Your task to perform on an android device: toggle pop-ups in chrome Image 0: 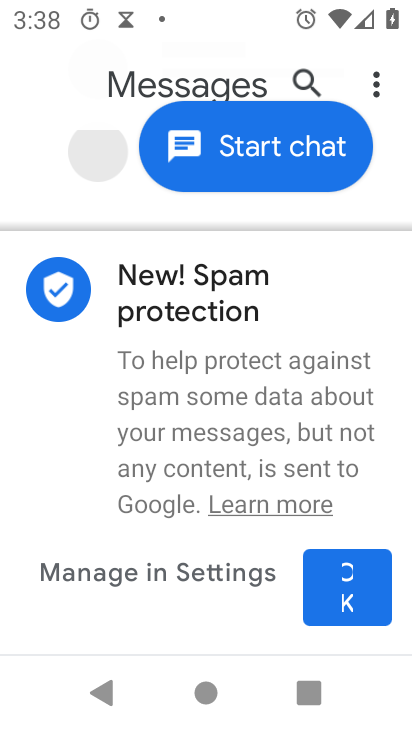
Step 0: press home button
Your task to perform on an android device: toggle pop-ups in chrome Image 1: 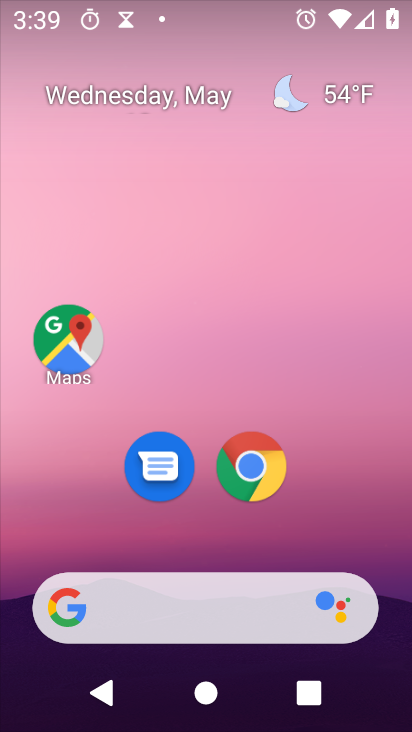
Step 1: drag from (324, 528) to (287, 285)
Your task to perform on an android device: toggle pop-ups in chrome Image 2: 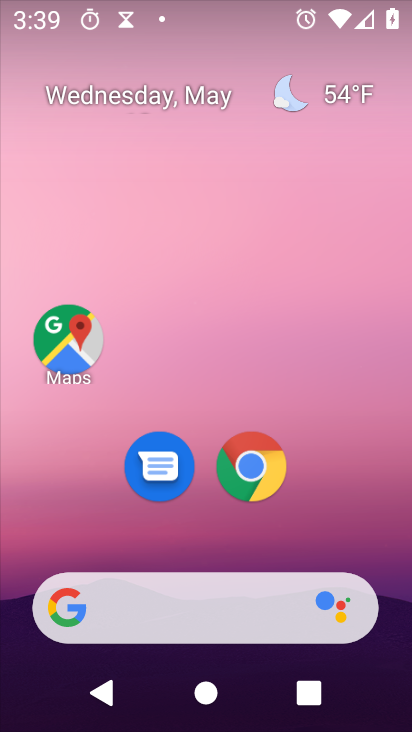
Step 2: click (259, 476)
Your task to perform on an android device: toggle pop-ups in chrome Image 3: 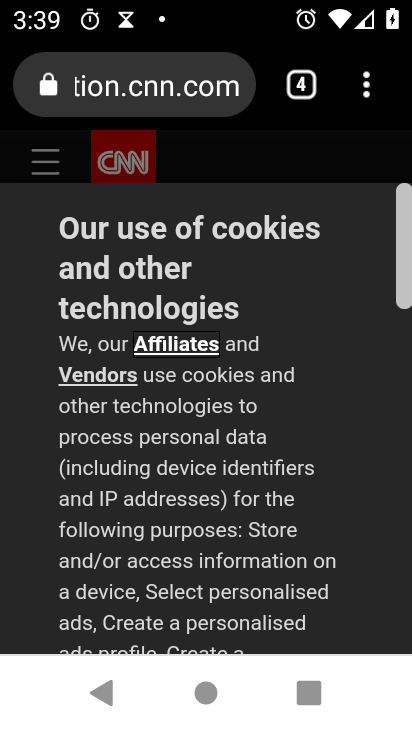
Step 3: click (351, 93)
Your task to perform on an android device: toggle pop-ups in chrome Image 4: 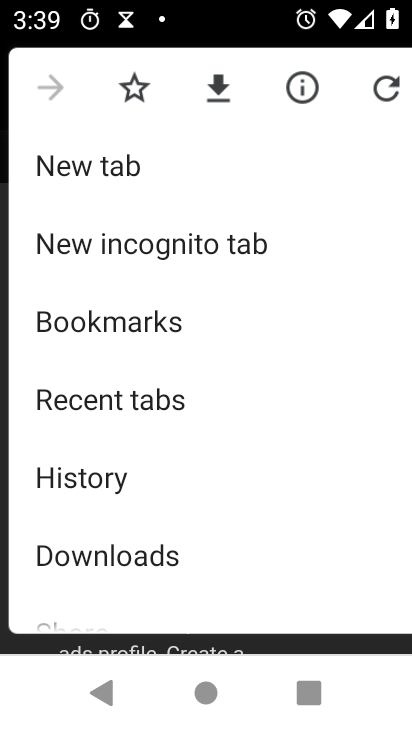
Step 4: drag from (200, 592) to (292, 0)
Your task to perform on an android device: toggle pop-ups in chrome Image 5: 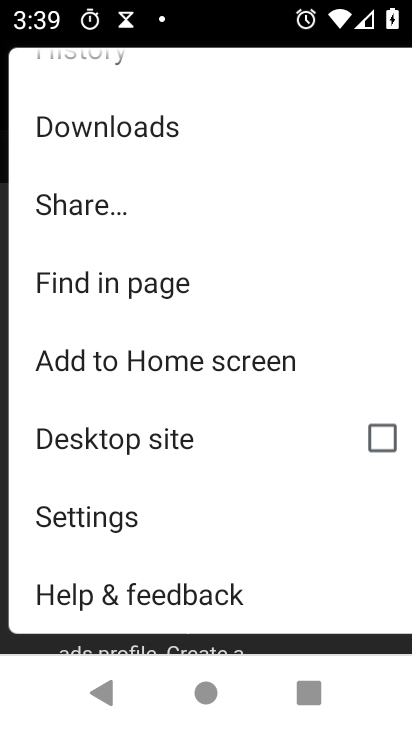
Step 5: click (303, 489)
Your task to perform on an android device: toggle pop-ups in chrome Image 6: 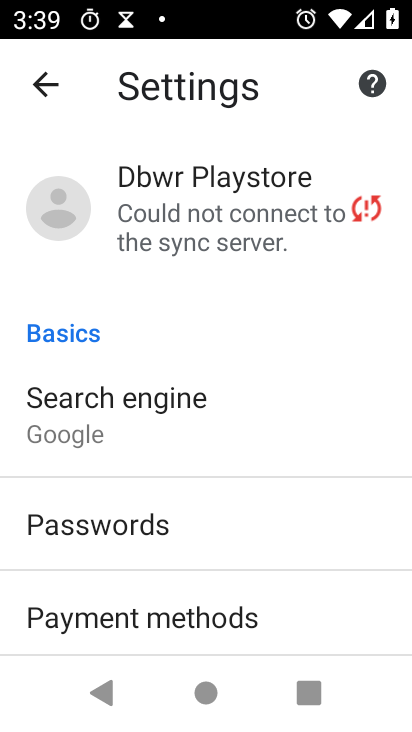
Step 6: drag from (363, 635) to (293, 158)
Your task to perform on an android device: toggle pop-ups in chrome Image 7: 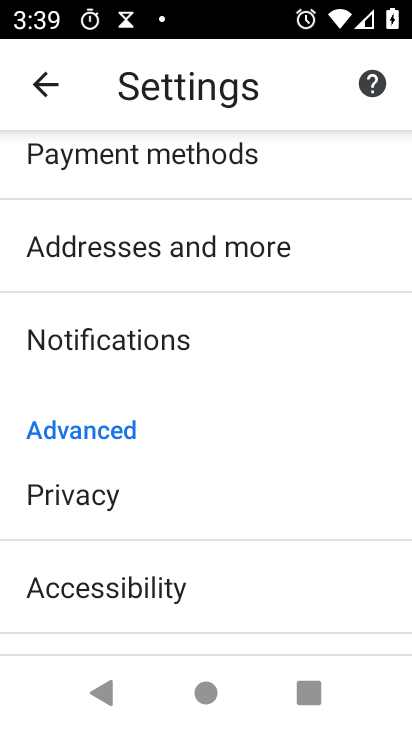
Step 7: drag from (338, 585) to (291, 240)
Your task to perform on an android device: toggle pop-ups in chrome Image 8: 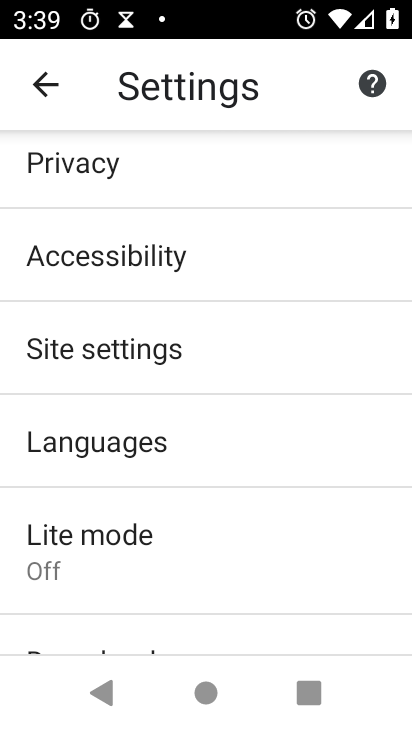
Step 8: click (293, 360)
Your task to perform on an android device: toggle pop-ups in chrome Image 9: 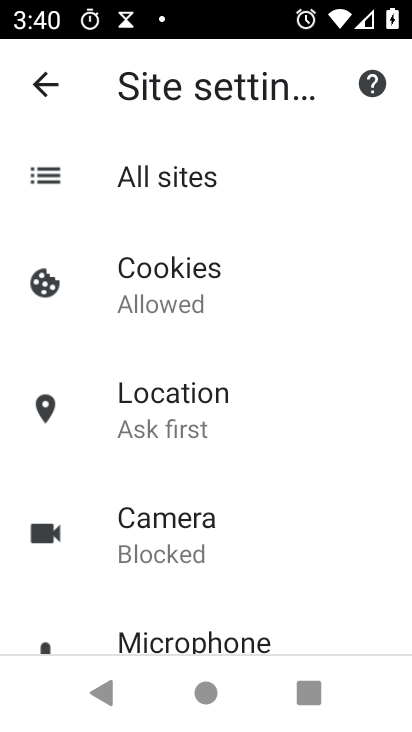
Step 9: drag from (297, 573) to (303, 62)
Your task to perform on an android device: toggle pop-ups in chrome Image 10: 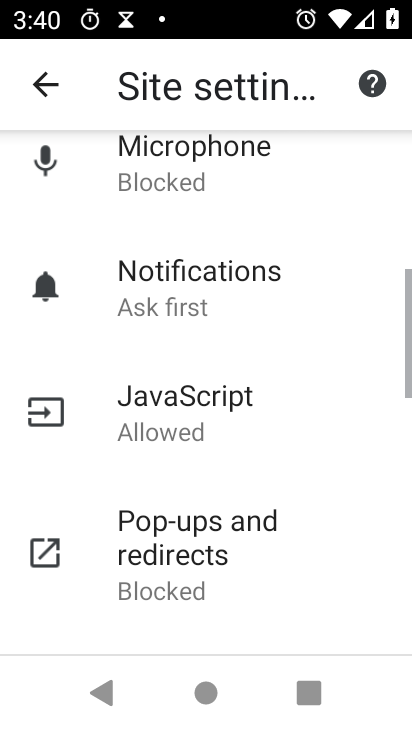
Step 10: click (305, 515)
Your task to perform on an android device: toggle pop-ups in chrome Image 11: 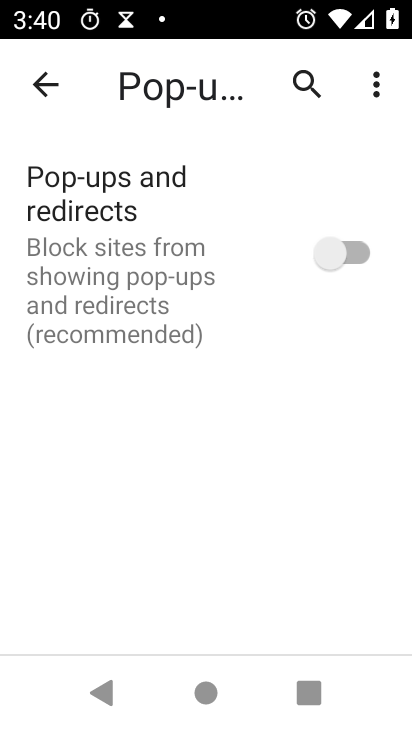
Step 11: click (346, 266)
Your task to perform on an android device: toggle pop-ups in chrome Image 12: 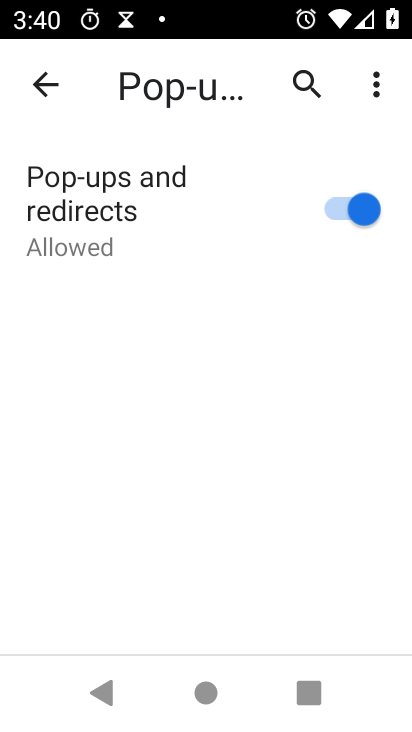
Step 12: task complete